Your task to perform on an android device: set default search engine in the chrome app Image 0: 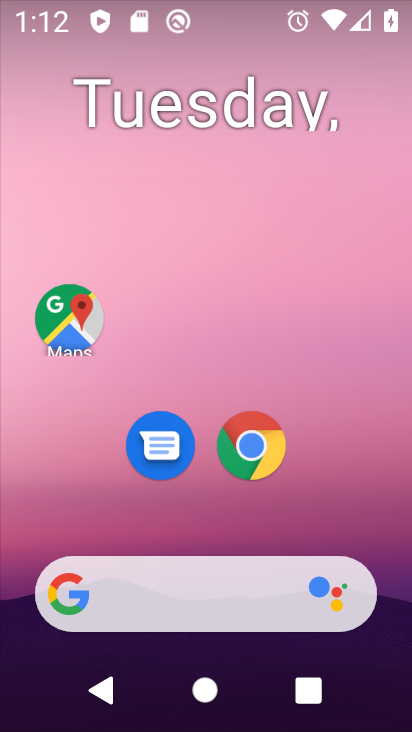
Step 0: click (255, 465)
Your task to perform on an android device: set default search engine in the chrome app Image 1: 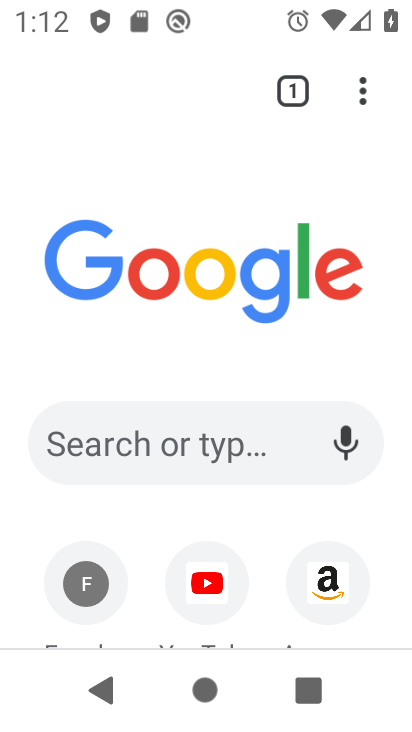
Step 1: click (370, 81)
Your task to perform on an android device: set default search engine in the chrome app Image 2: 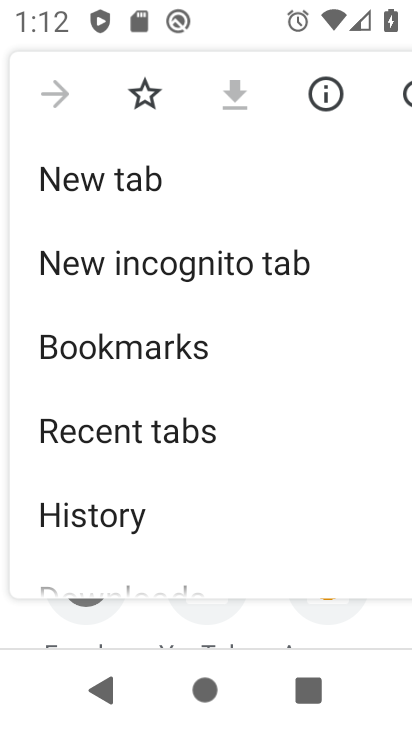
Step 2: drag from (247, 490) to (270, 224)
Your task to perform on an android device: set default search engine in the chrome app Image 3: 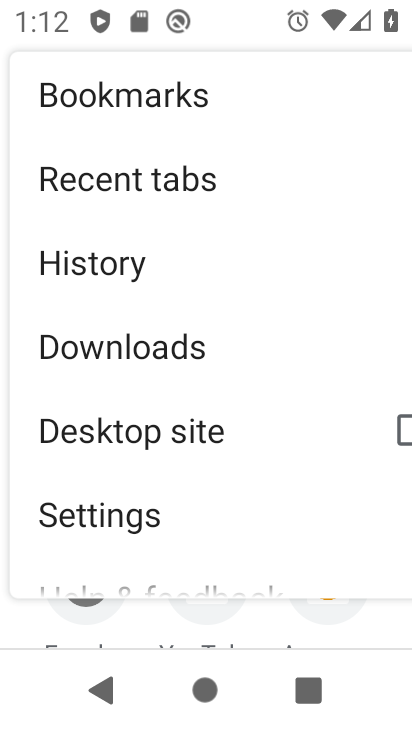
Step 3: drag from (239, 538) to (249, 363)
Your task to perform on an android device: set default search engine in the chrome app Image 4: 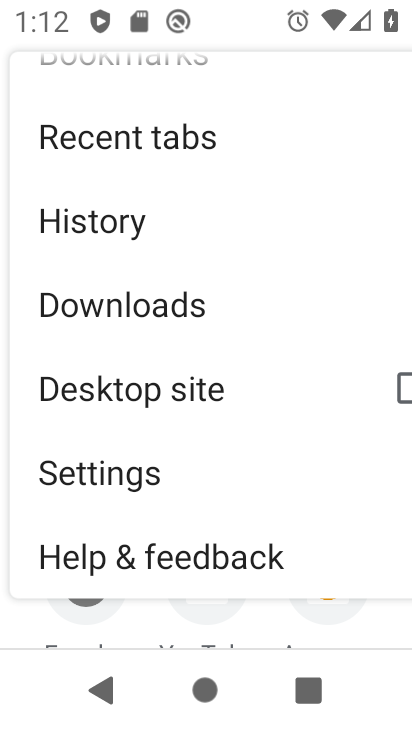
Step 4: click (188, 457)
Your task to perform on an android device: set default search engine in the chrome app Image 5: 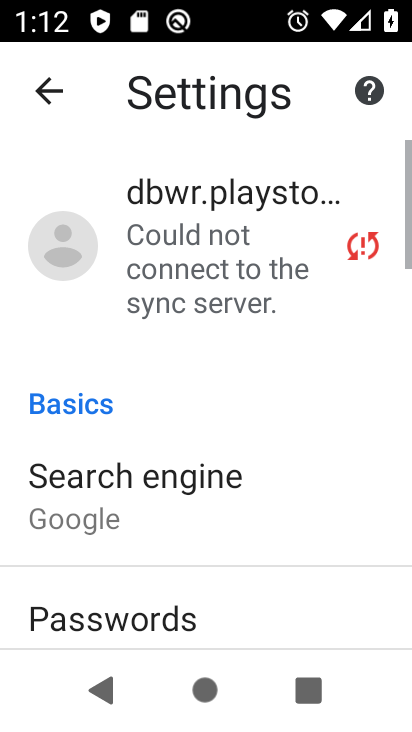
Step 5: click (164, 455)
Your task to perform on an android device: set default search engine in the chrome app Image 6: 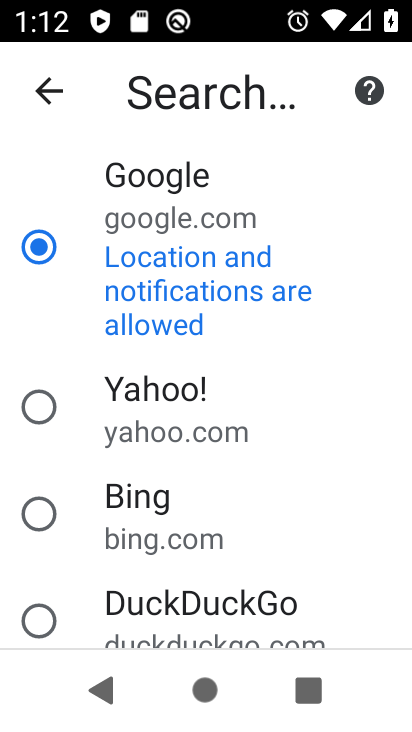
Step 6: task complete